Your task to perform on an android device: Open the calendar and show me this week's events? Image 0: 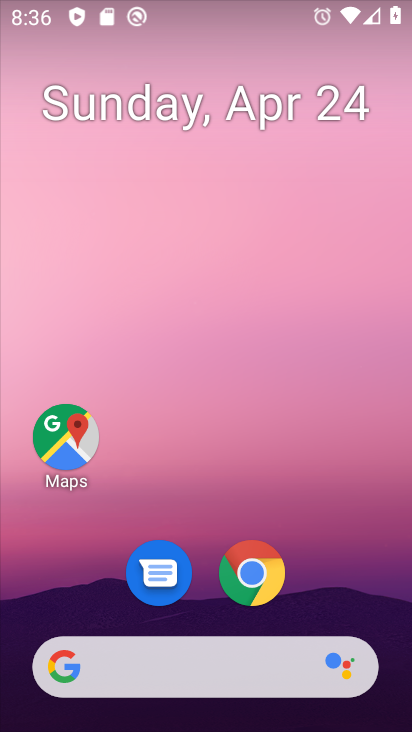
Step 0: drag from (255, 570) to (102, 341)
Your task to perform on an android device: Open the calendar and show me this week's events? Image 1: 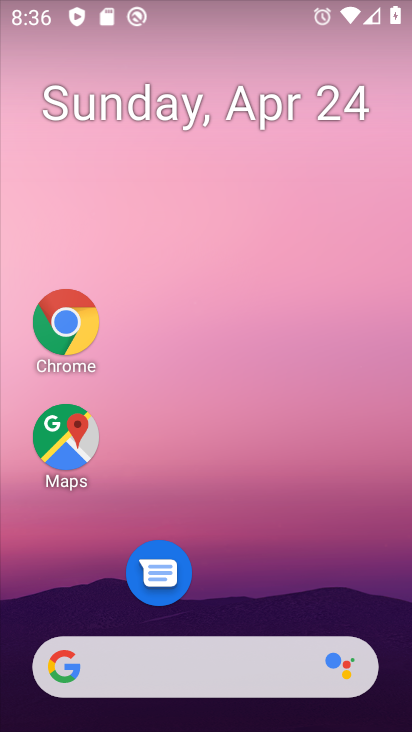
Step 1: drag from (172, 585) to (411, 503)
Your task to perform on an android device: Open the calendar and show me this week's events? Image 2: 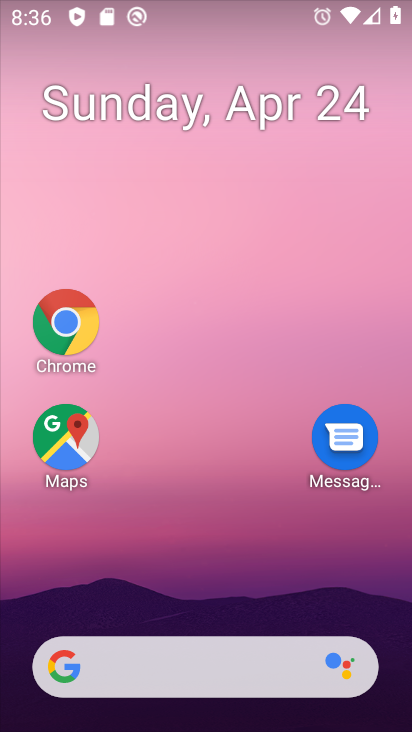
Step 2: drag from (328, 450) to (410, 421)
Your task to perform on an android device: Open the calendar and show me this week's events? Image 3: 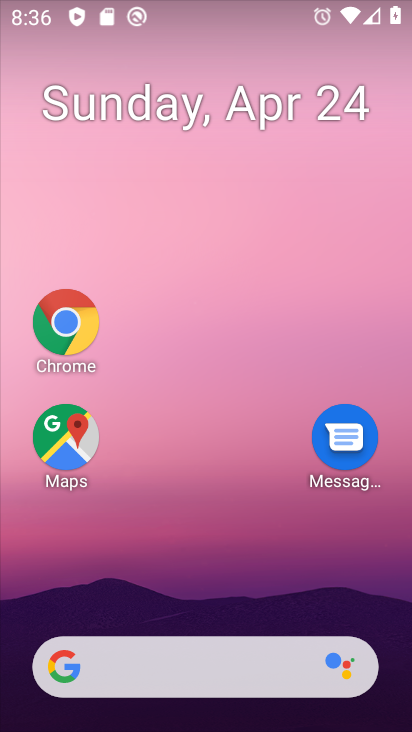
Step 3: drag from (330, 434) to (390, 401)
Your task to perform on an android device: Open the calendar and show me this week's events? Image 4: 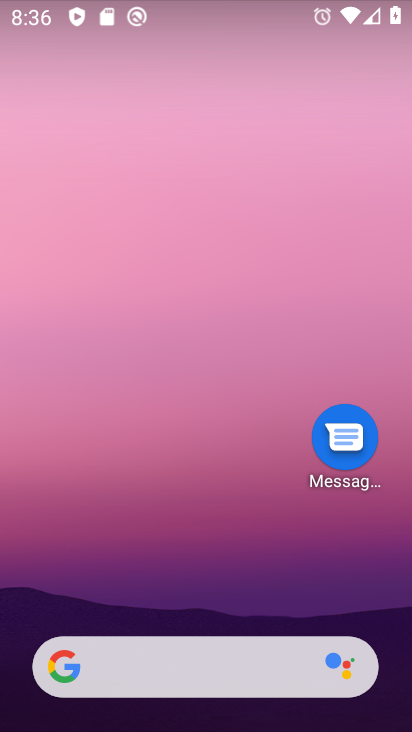
Step 4: drag from (16, 266) to (398, 338)
Your task to perform on an android device: Open the calendar and show me this week's events? Image 5: 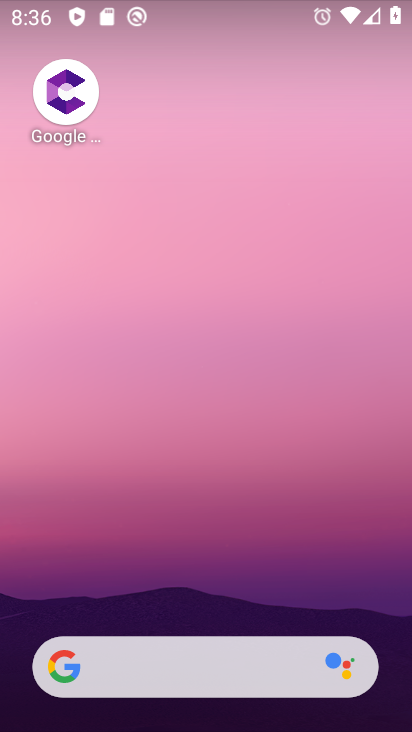
Step 5: drag from (26, 261) to (405, 421)
Your task to perform on an android device: Open the calendar and show me this week's events? Image 6: 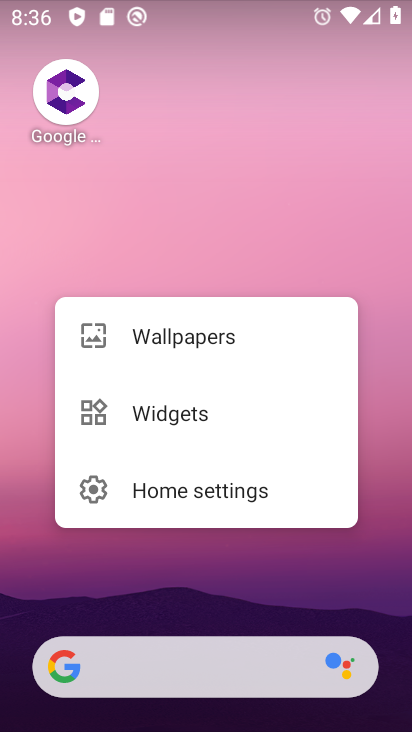
Step 6: click (28, 248)
Your task to perform on an android device: Open the calendar and show me this week's events? Image 7: 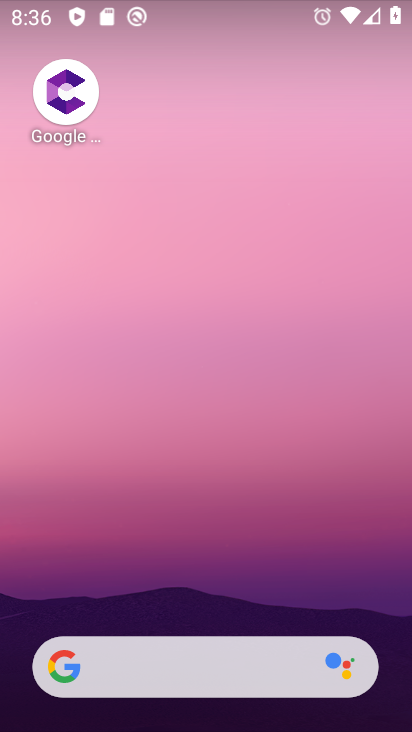
Step 7: drag from (28, 248) to (372, 455)
Your task to perform on an android device: Open the calendar and show me this week's events? Image 8: 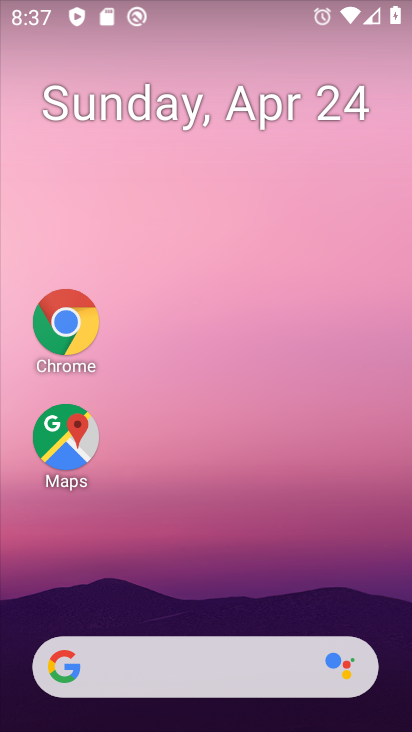
Step 8: drag from (268, 537) to (166, 10)
Your task to perform on an android device: Open the calendar and show me this week's events? Image 9: 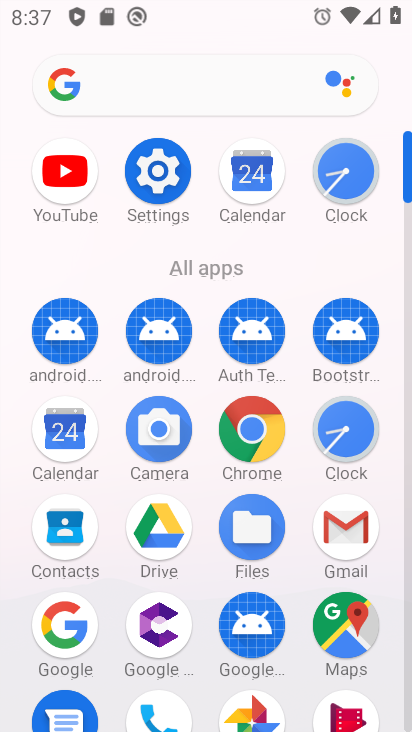
Step 9: click (64, 426)
Your task to perform on an android device: Open the calendar and show me this week's events? Image 10: 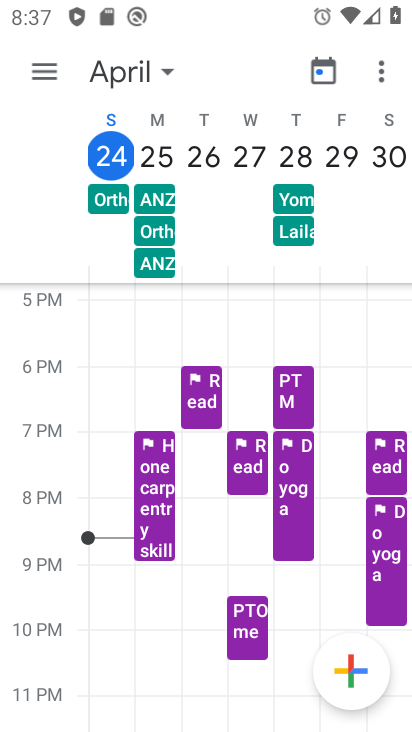
Step 10: task complete